Your task to perform on an android device: Do I have any events today? Image 0: 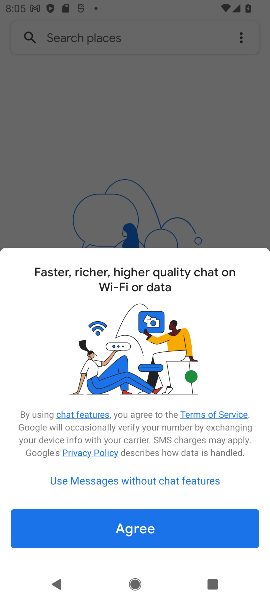
Step 0: press home button
Your task to perform on an android device: Do I have any events today? Image 1: 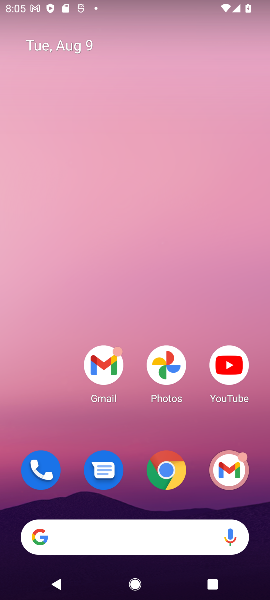
Step 1: drag from (139, 498) to (122, 9)
Your task to perform on an android device: Do I have any events today? Image 2: 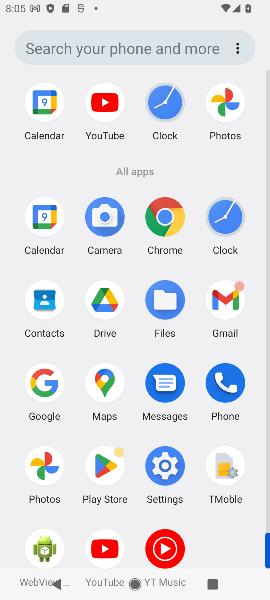
Step 2: click (52, 236)
Your task to perform on an android device: Do I have any events today? Image 3: 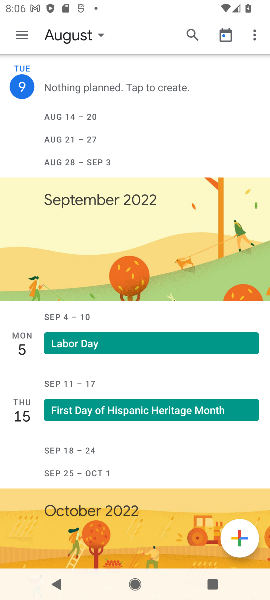
Step 3: click (17, 27)
Your task to perform on an android device: Do I have any events today? Image 4: 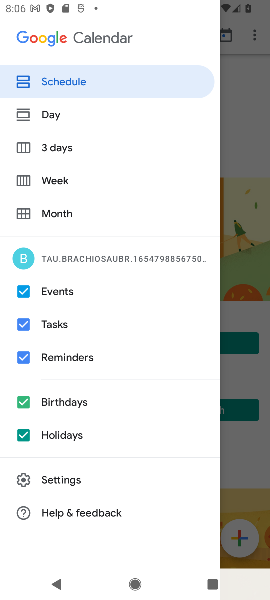
Step 4: click (35, 330)
Your task to perform on an android device: Do I have any events today? Image 5: 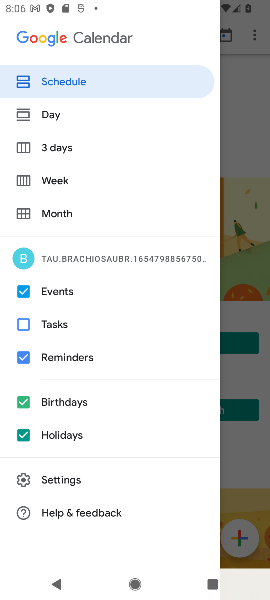
Step 5: click (63, 361)
Your task to perform on an android device: Do I have any events today? Image 6: 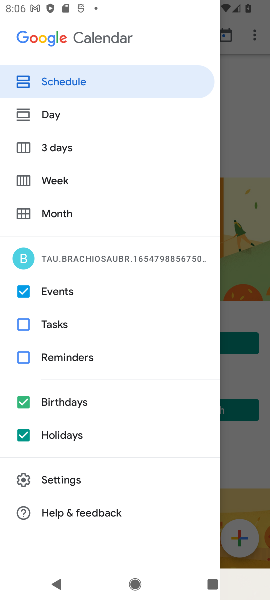
Step 6: click (67, 405)
Your task to perform on an android device: Do I have any events today? Image 7: 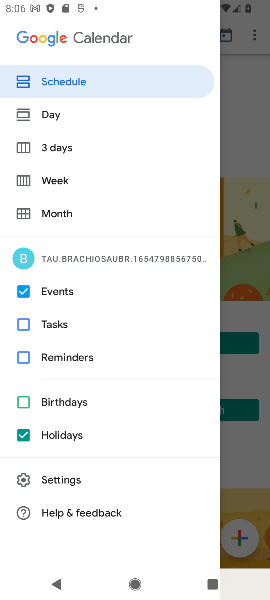
Step 7: click (67, 433)
Your task to perform on an android device: Do I have any events today? Image 8: 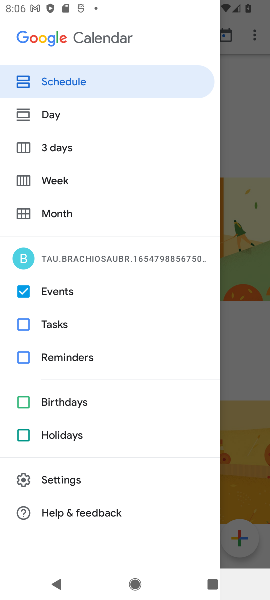
Step 8: click (59, 118)
Your task to perform on an android device: Do I have any events today? Image 9: 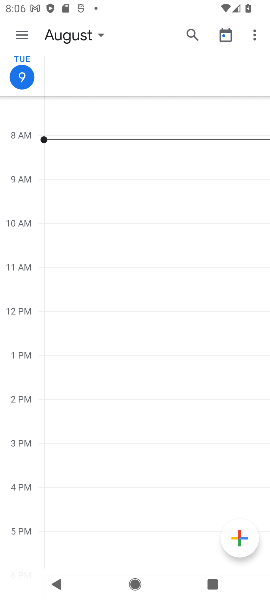
Step 9: task complete